Your task to perform on an android device: Go to Google Image 0: 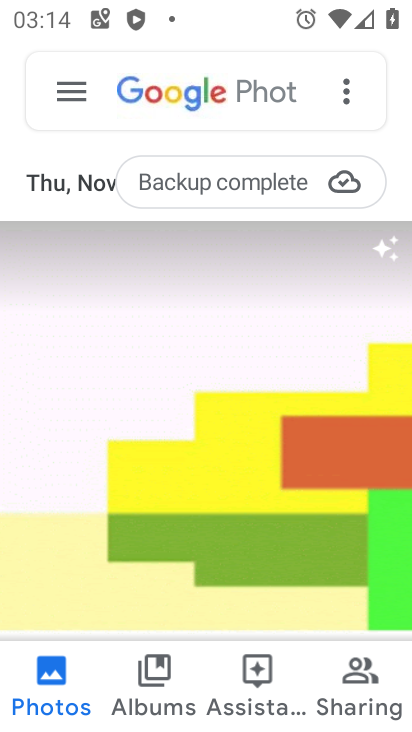
Step 0: press home button
Your task to perform on an android device: Go to Google Image 1: 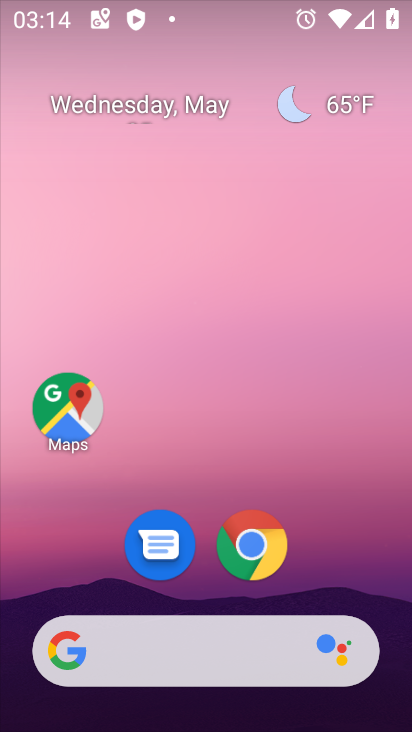
Step 1: drag from (332, 522) to (172, 37)
Your task to perform on an android device: Go to Google Image 2: 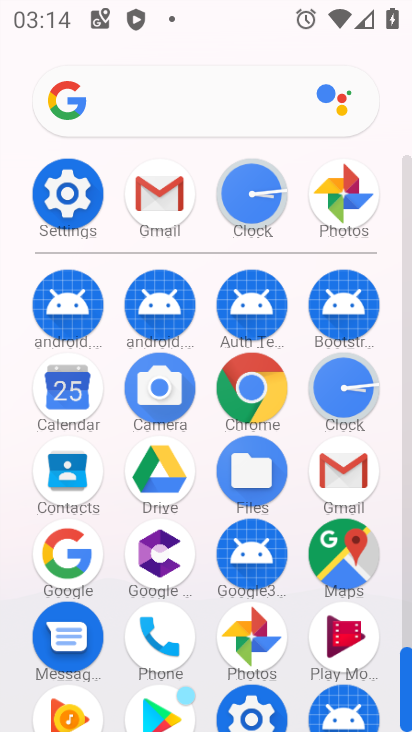
Step 2: click (81, 560)
Your task to perform on an android device: Go to Google Image 3: 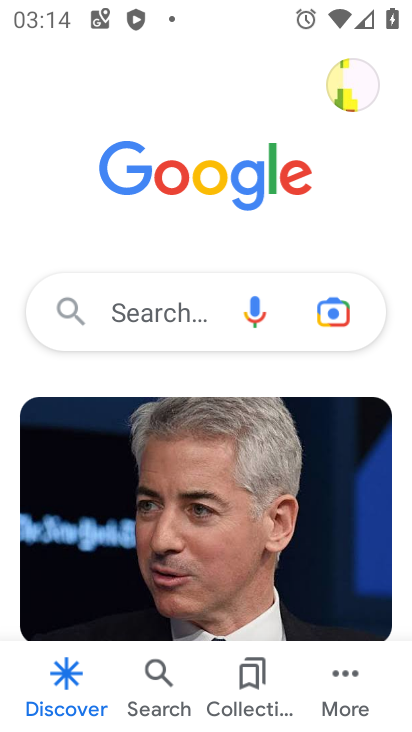
Step 3: task complete